Your task to perform on an android device: open a bookmark in the chrome app Image 0: 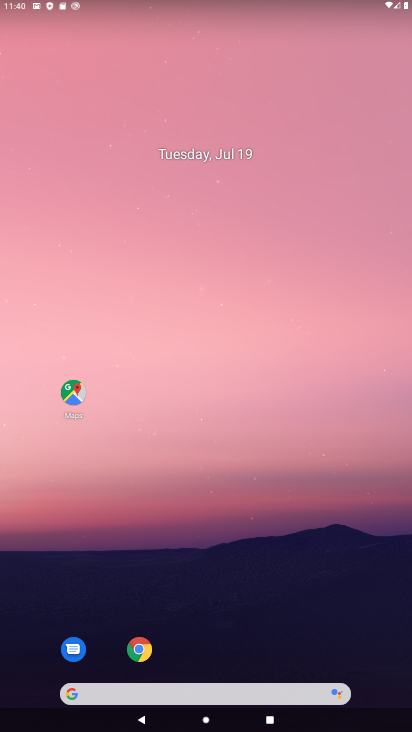
Step 0: drag from (210, 656) to (230, 148)
Your task to perform on an android device: open a bookmark in the chrome app Image 1: 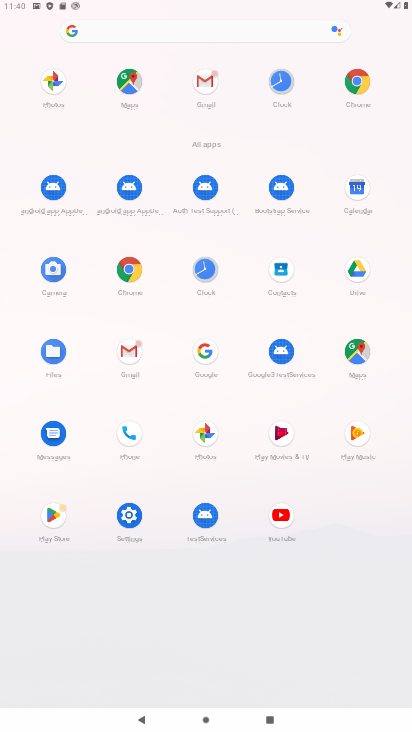
Step 1: click (130, 267)
Your task to perform on an android device: open a bookmark in the chrome app Image 2: 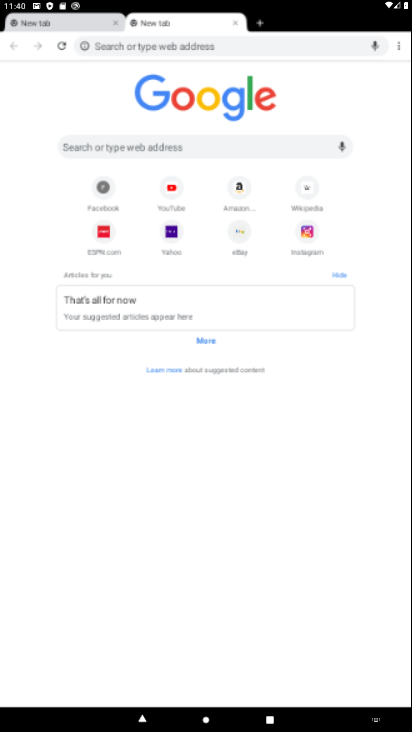
Step 2: click (397, 47)
Your task to perform on an android device: open a bookmark in the chrome app Image 3: 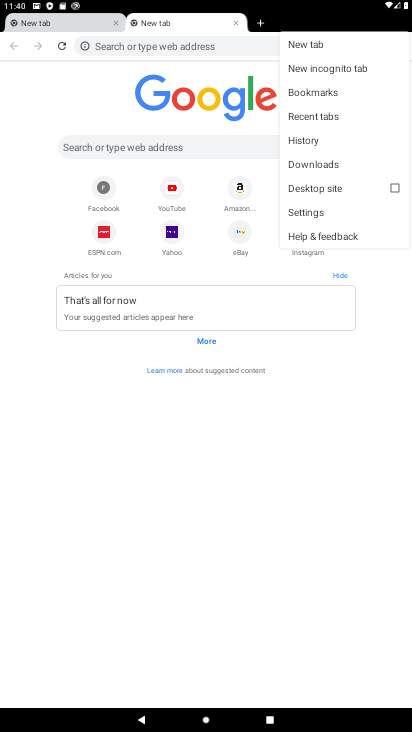
Step 3: click (307, 87)
Your task to perform on an android device: open a bookmark in the chrome app Image 4: 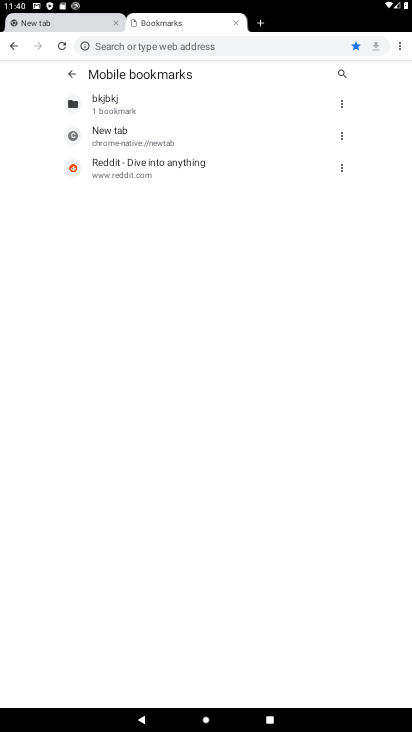
Step 4: task complete